Your task to perform on an android device: Open calendar and show me the first week of next month Image 0: 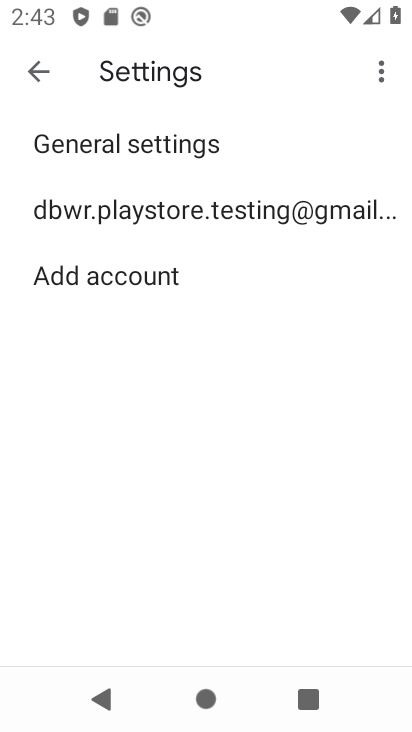
Step 0: press home button
Your task to perform on an android device: Open calendar and show me the first week of next month Image 1: 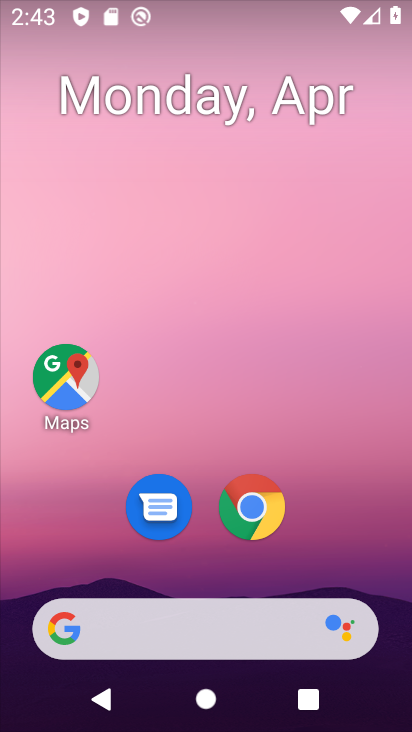
Step 1: drag from (375, 564) to (334, 150)
Your task to perform on an android device: Open calendar and show me the first week of next month Image 2: 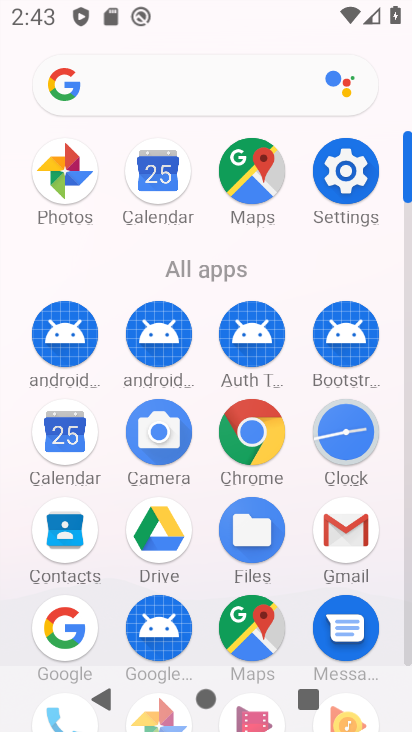
Step 2: click (69, 434)
Your task to perform on an android device: Open calendar and show me the first week of next month Image 3: 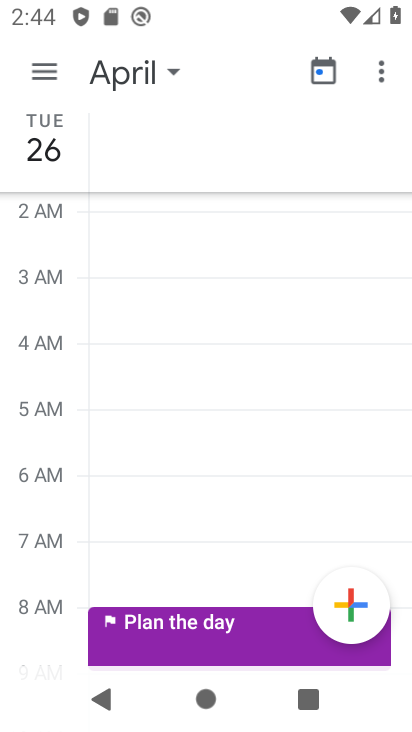
Step 3: click (138, 72)
Your task to perform on an android device: Open calendar and show me the first week of next month Image 4: 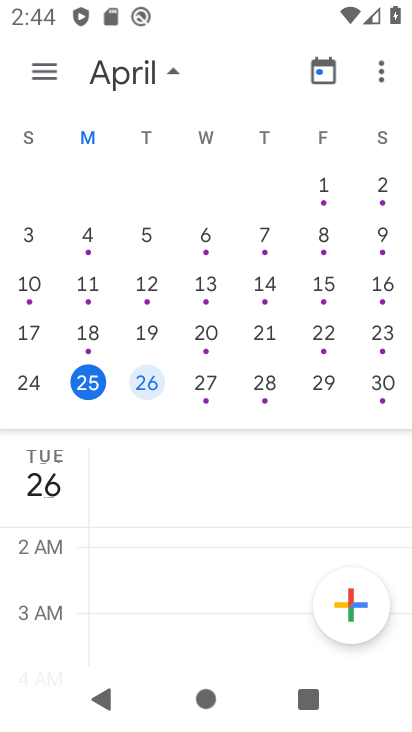
Step 4: click (54, 77)
Your task to perform on an android device: Open calendar and show me the first week of next month Image 5: 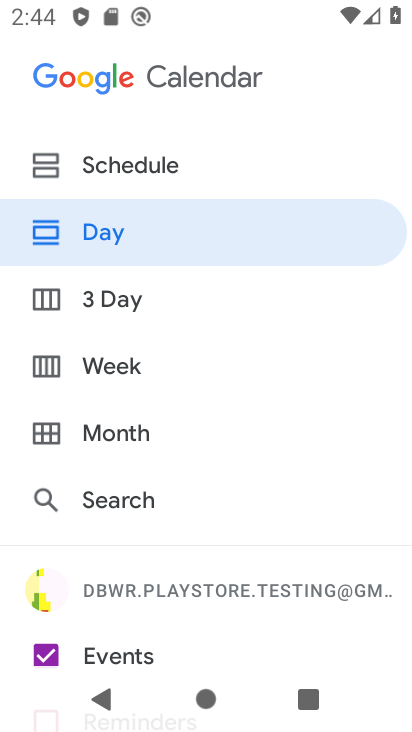
Step 5: click (158, 358)
Your task to perform on an android device: Open calendar and show me the first week of next month Image 6: 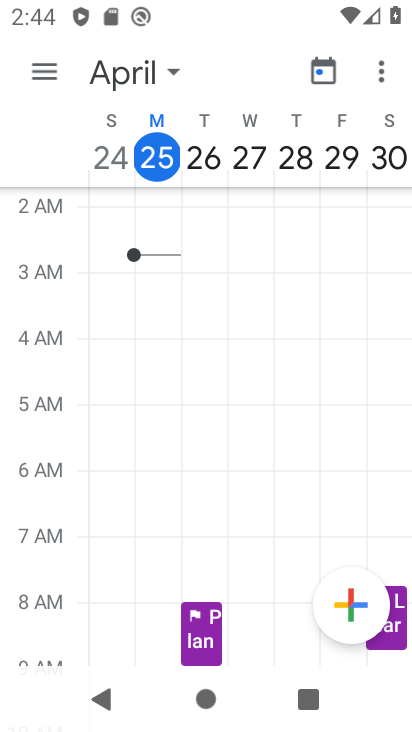
Step 6: click (173, 58)
Your task to perform on an android device: Open calendar and show me the first week of next month Image 7: 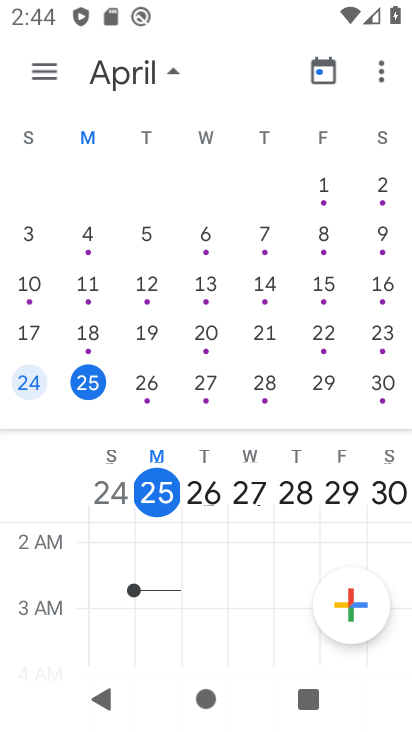
Step 7: drag from (398, 261) to (17, 265)
Your task to perform on an android device: Open calendar and show me the first week of next month Image 8: 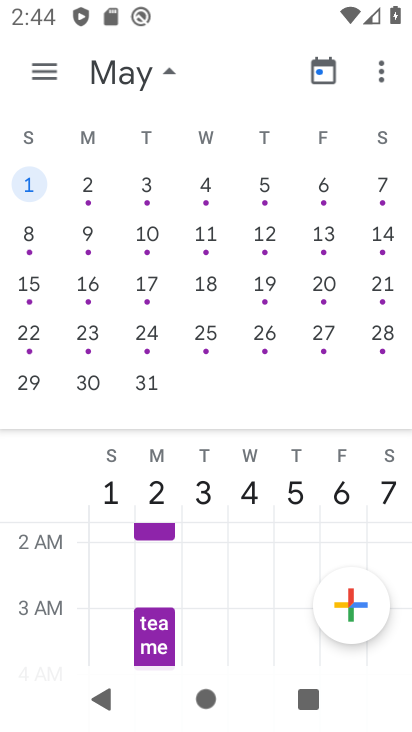
Step 8: click (148, 190)
Your task to perform on an android device: Open calendar and show me the first week of next month Image 9: 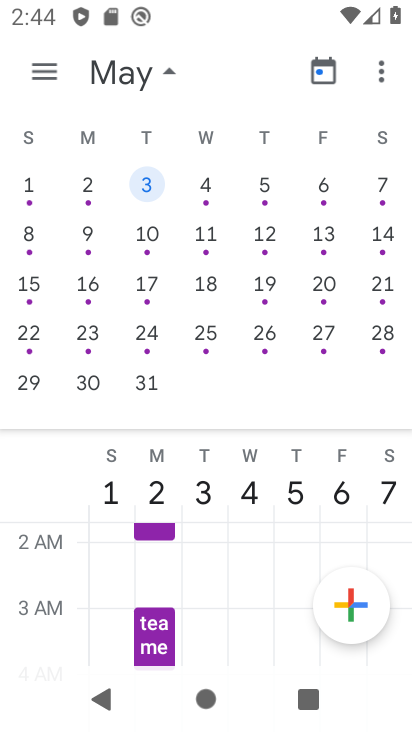
Step 9: click (146, 89)
Your task to perform on an android device: Open calendar and show me the first week of next month Image 10: 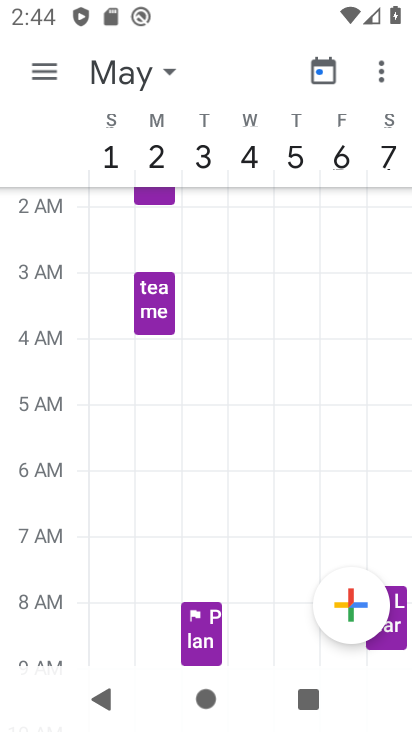
Step 10: task complete